Your task to perform on an android device: check data usage Image 0: 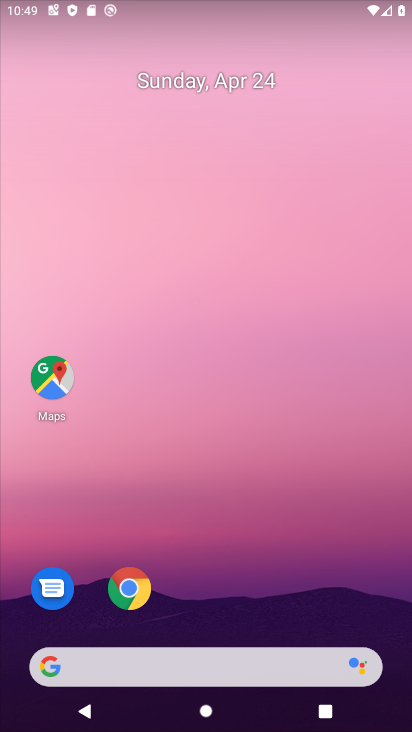
Step 0: drag from (218, 541) to (214, 98)
Your task to perform on an android device: check data usage Image 1: 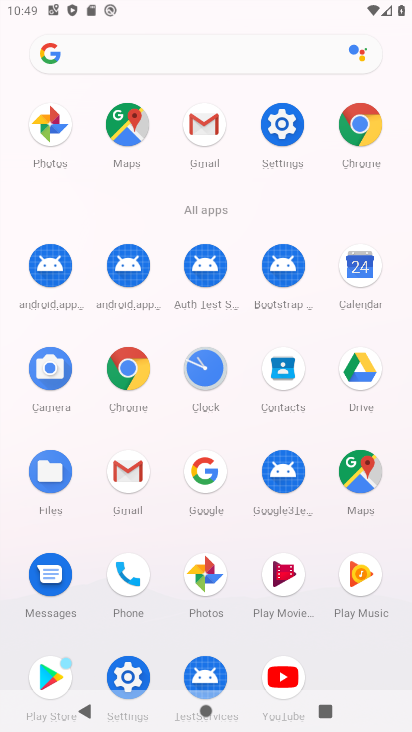
Step 1: click (277, 130)
Your task to perform on an android device: check data usage Image 2: 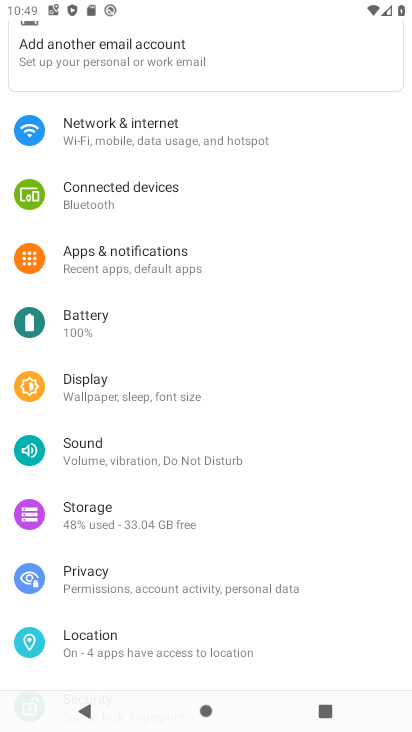
Step 2: click (188, 138)
Your task to perform on an android device: check data usage Image 3: 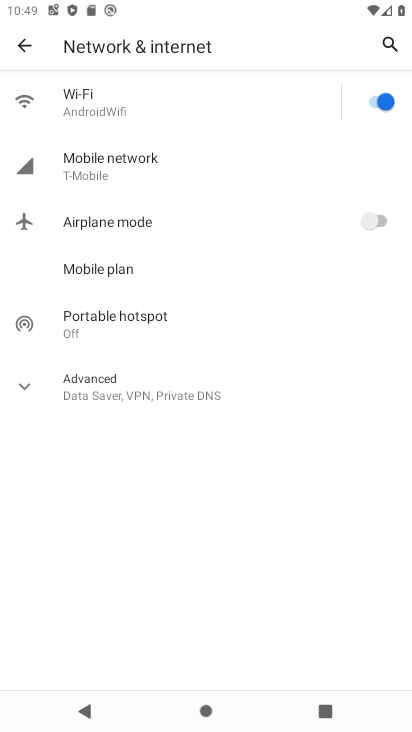
Step 3: click (105, 167)
Your task to perform on an android device: check data usage Image 4: 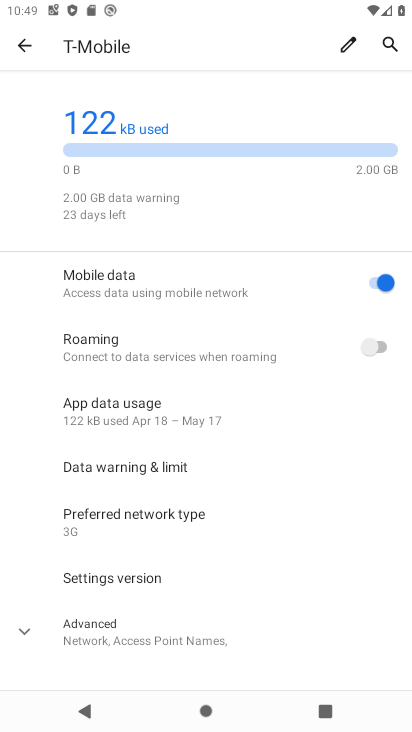
Step 4: click (161, 410)
Your task to perform on an android device: check data usage Image 5: 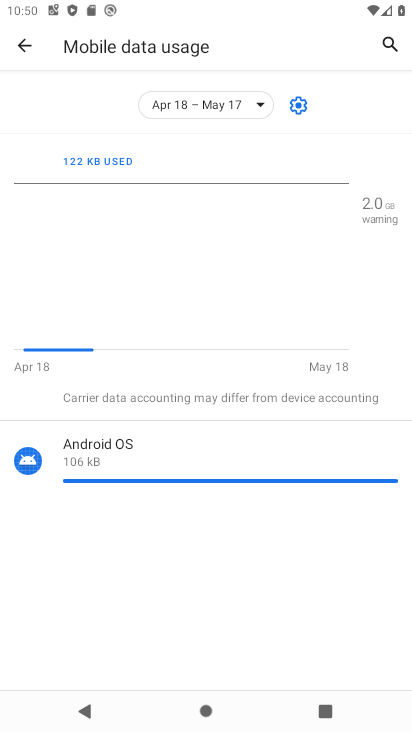
Step 5: task complete